Your task to perform on an android device: Turn off the flashlight Image 0: 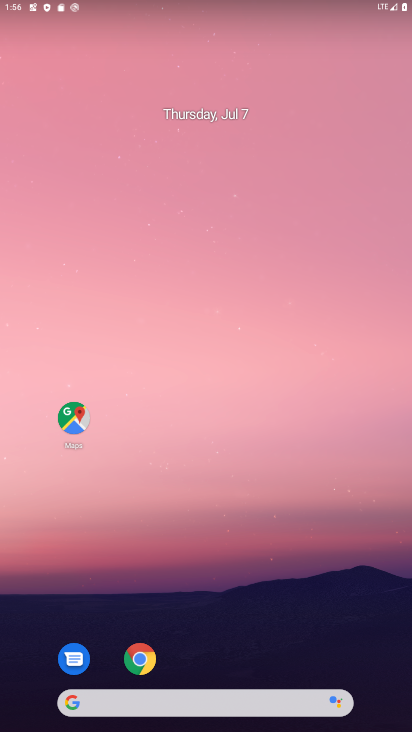
Step 0: drag from (235, 648) to (230, 86)
Your task to perform on an android device: Turn off the flashlight Image 1: 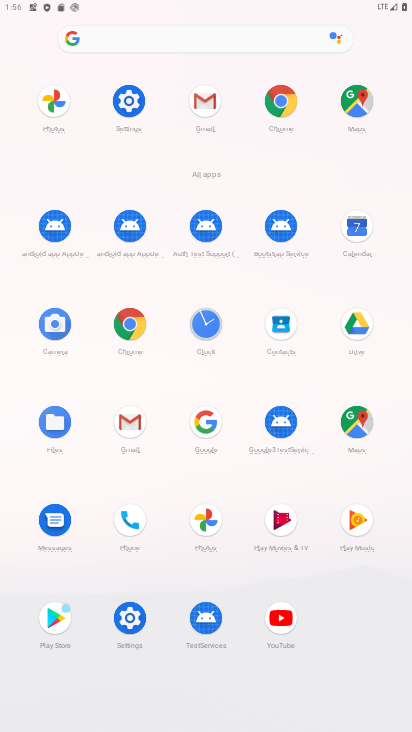
Step 1: click (129, 102)
Your task to perform on an android device: Turn off the flashlight Image 2: 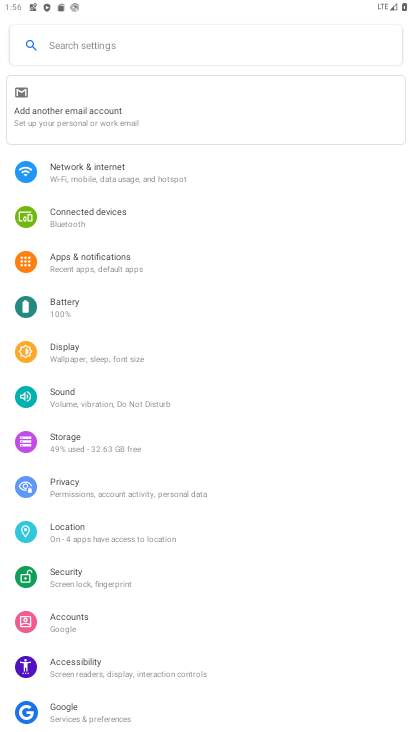
Step 2: click (76, 350)
Your task to perform on an android device: Turn off the flashlight Image 3: 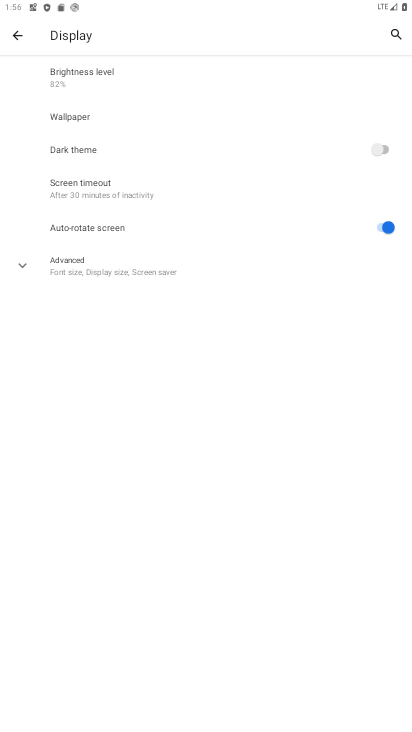
Step 3: click (105, 278)
Your task to perform on an android device: Turn off the flashlight Image 4: 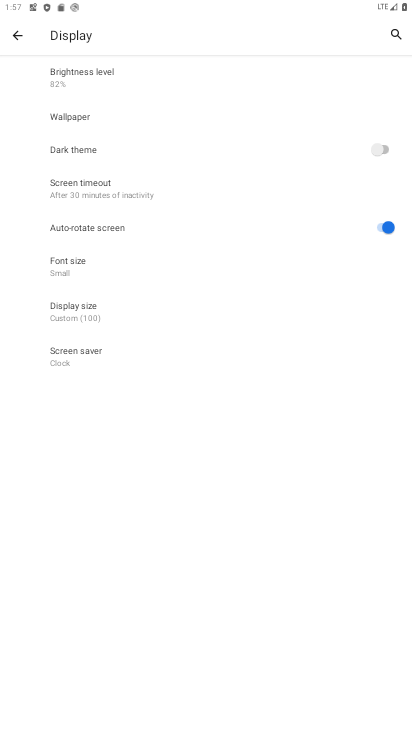
Step 4: click (81, 314)
Your task to perform on an android device: Turn off the flashlight Image 5: 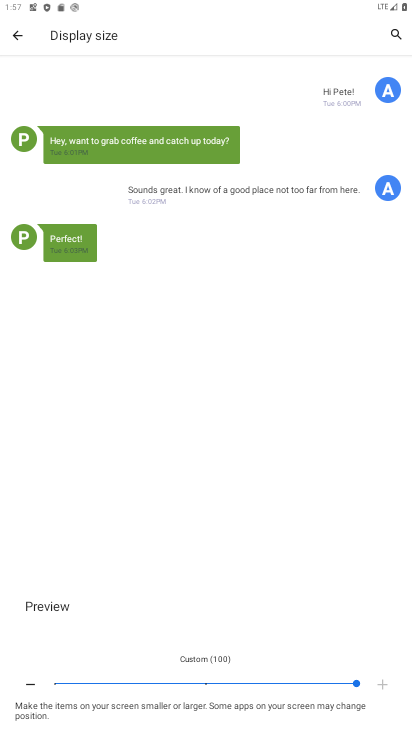
Step 5: click (16, 36)
Your task to perform on an android device: Turn off the flashlight Image 6: 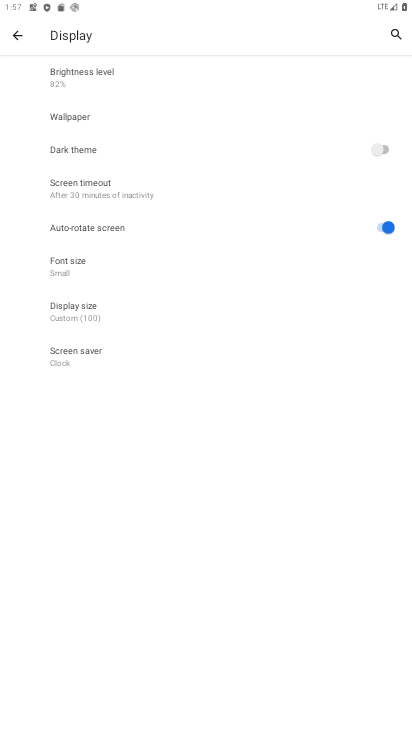
Step 6: press back button
Your task to perform on an android device: Turn off the flashlight Image 7: 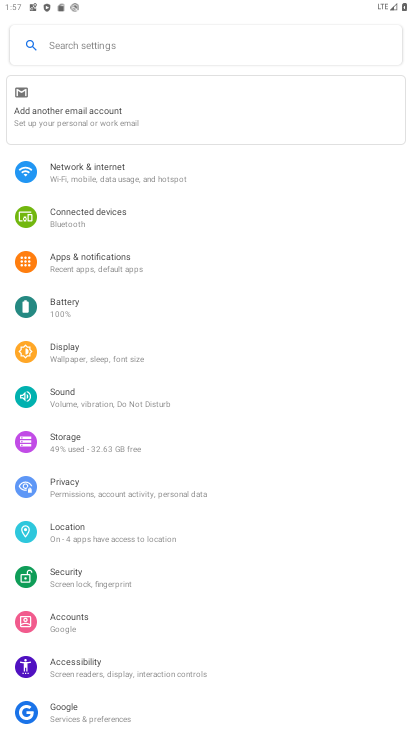
Step 7: drag from (82, 543) to (151, 457)
Your task to perform on an android device: Turn off the flashlight Image 8: 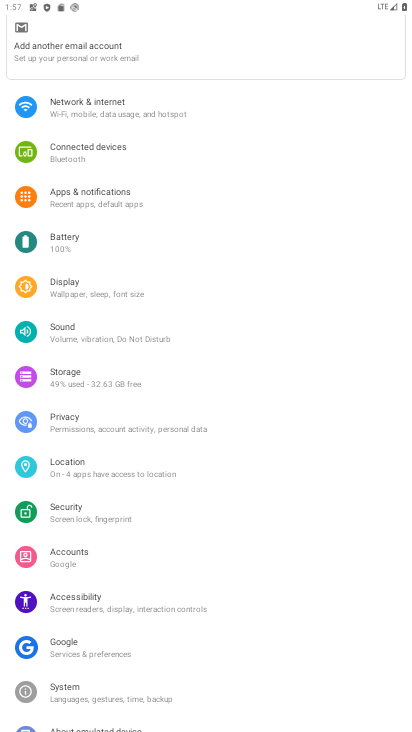
Step 8: click (94, 338)
Your task to perform on an android device: Turn off the flashlight Image 9: 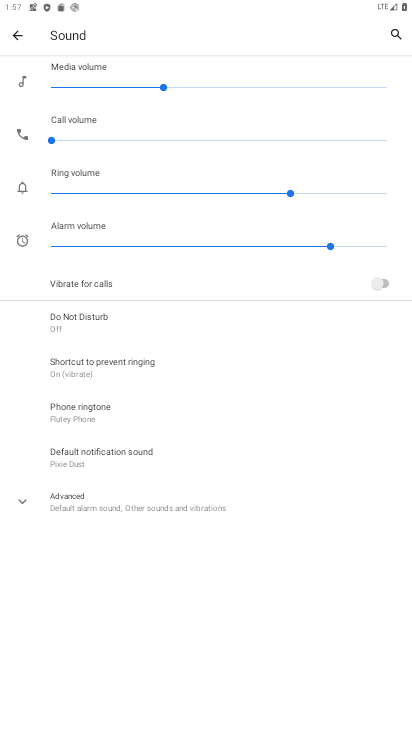
Step 9: task complete